Your task to perform on an android device: clear history in the chrome app Image 0: 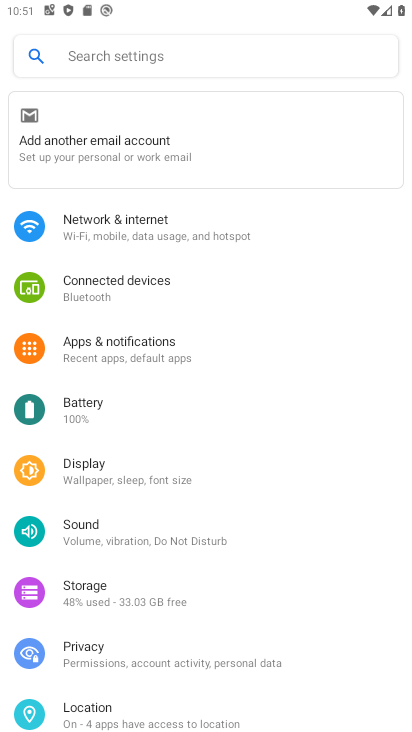
Step 0: press home button
Your task to perform on an android device: clear history in the chrome app Image 1: 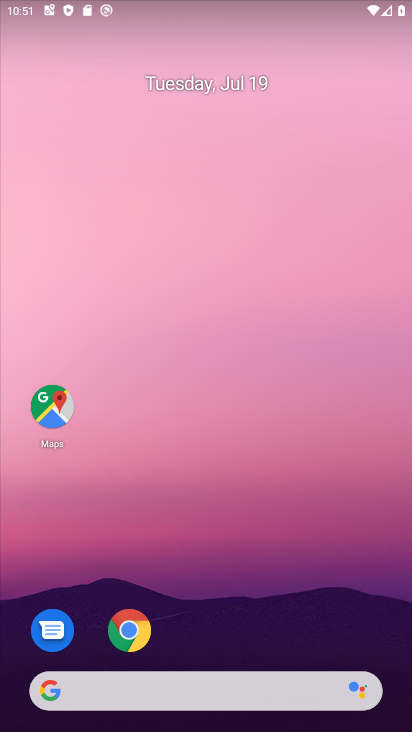
Step 1: click (146, 636)
Your task to perform on an android device: clear history in the chrome app Image 2: 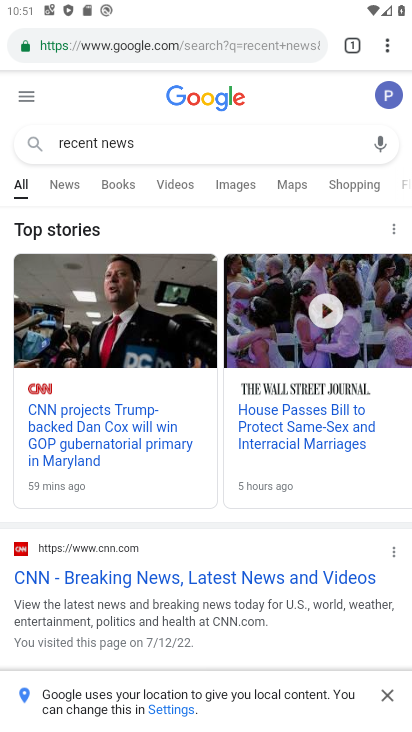
Step 2: drag from (380, 44) to (246, 251)
Your task to perform on an android device: clear history in the chrome app Image 3: 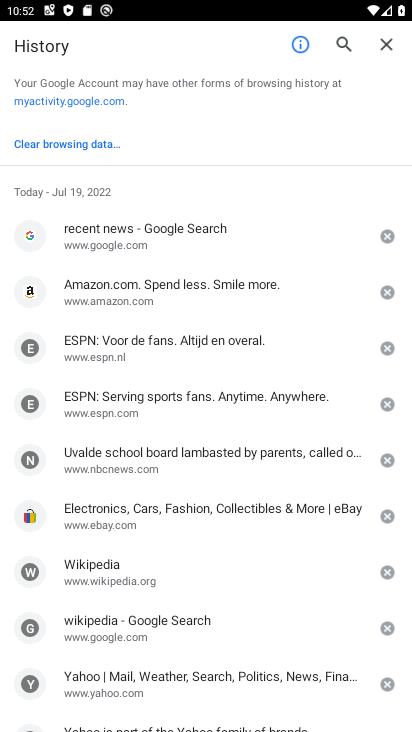
Step 3: click (46, 148)
Your task to perform on an android device: clear history in the chrome app Image 4: 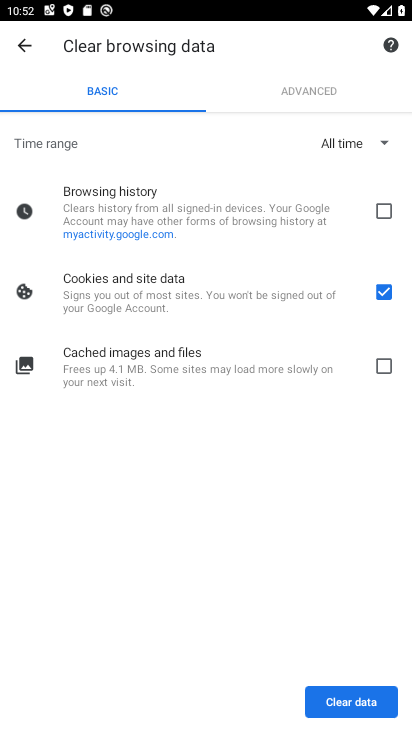
Step 4: click (382, 205)
Your task to perform on an android device: clear history in the chrome app Image 5: 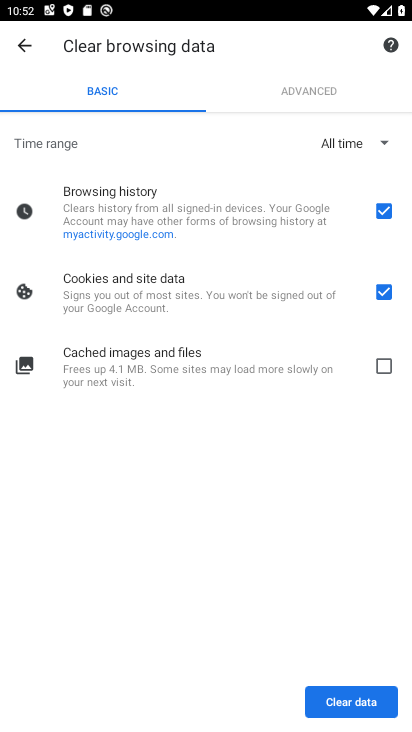
Step 5: click (349, 694)
Your task to perform on an android device: clear history in the chrome app Image 6: 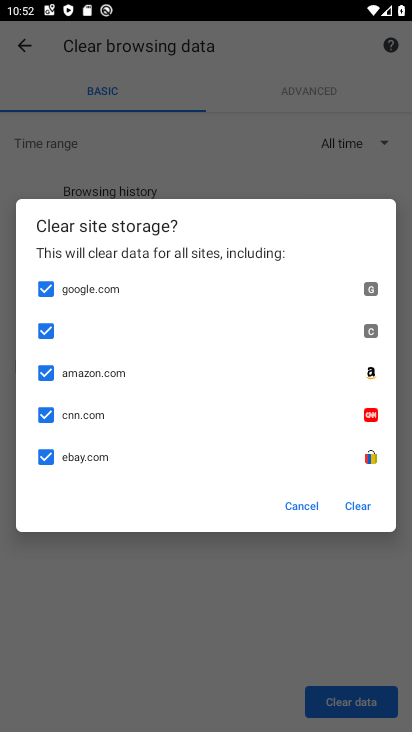
Step 6: task complete